Your task to perform on an android device: see creations saved in the google photos Image 0: 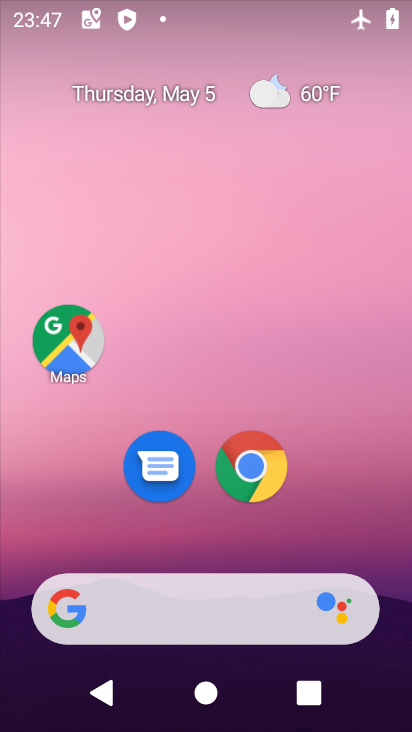
Step 0: drag from (206, 573) to (235, 146)
Your task to perform on an android device: see creations saved in the google photos Image 1: 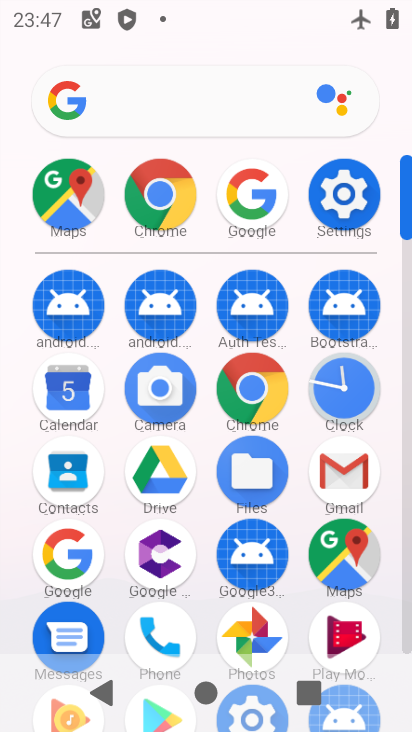
Step 1: click (241, 638)
Your task to perform on an android device: see creations saved in the google photos Image 2: 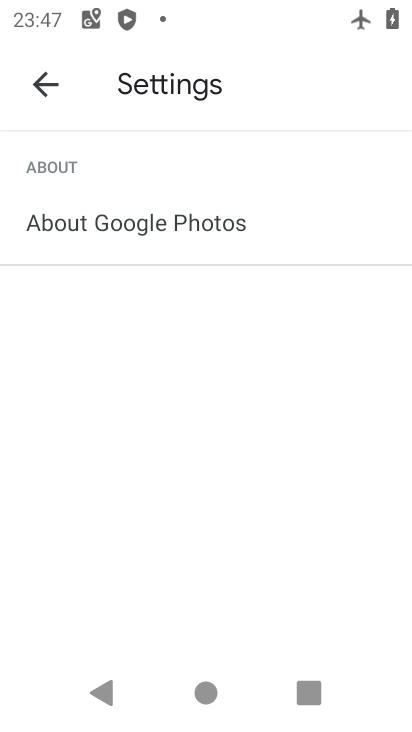
Step 2: click (55, 88)
Your task to perform on an android device: see creations saved in the google photos Image 3: 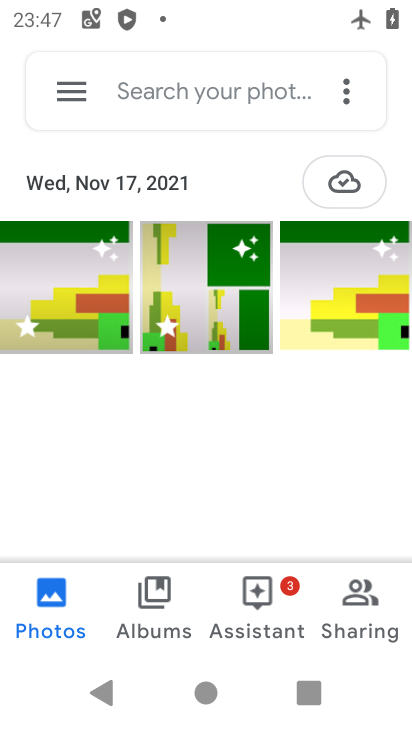
Step 3: click (247, 607)
Your task to perform on an android device: see creations saved in the google photos Image 4: 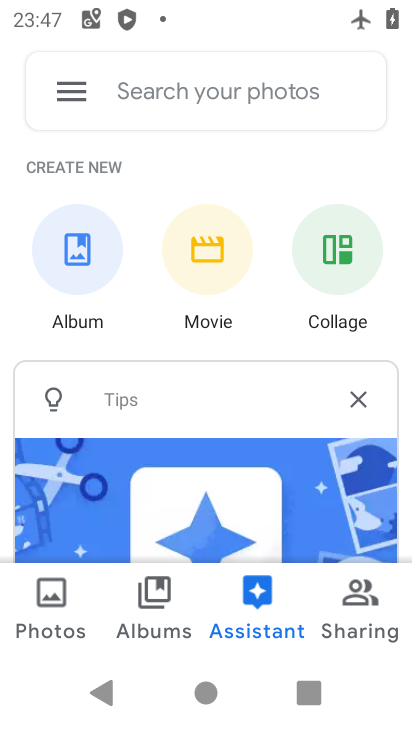
Step 4: click (169, 597)
Your task to perform on an android device: see creations saved in the google photos Image 5: 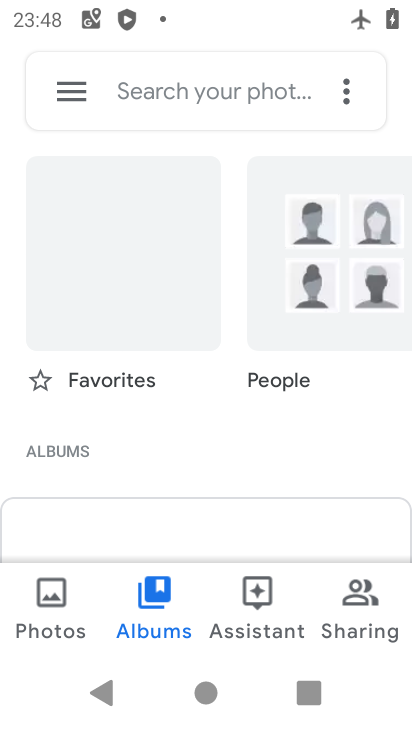
Step 5: task complete